Your task to perform on an android device: Clear the cart on walmart.com. Add macbook to the cart on walmart.com Image 0: 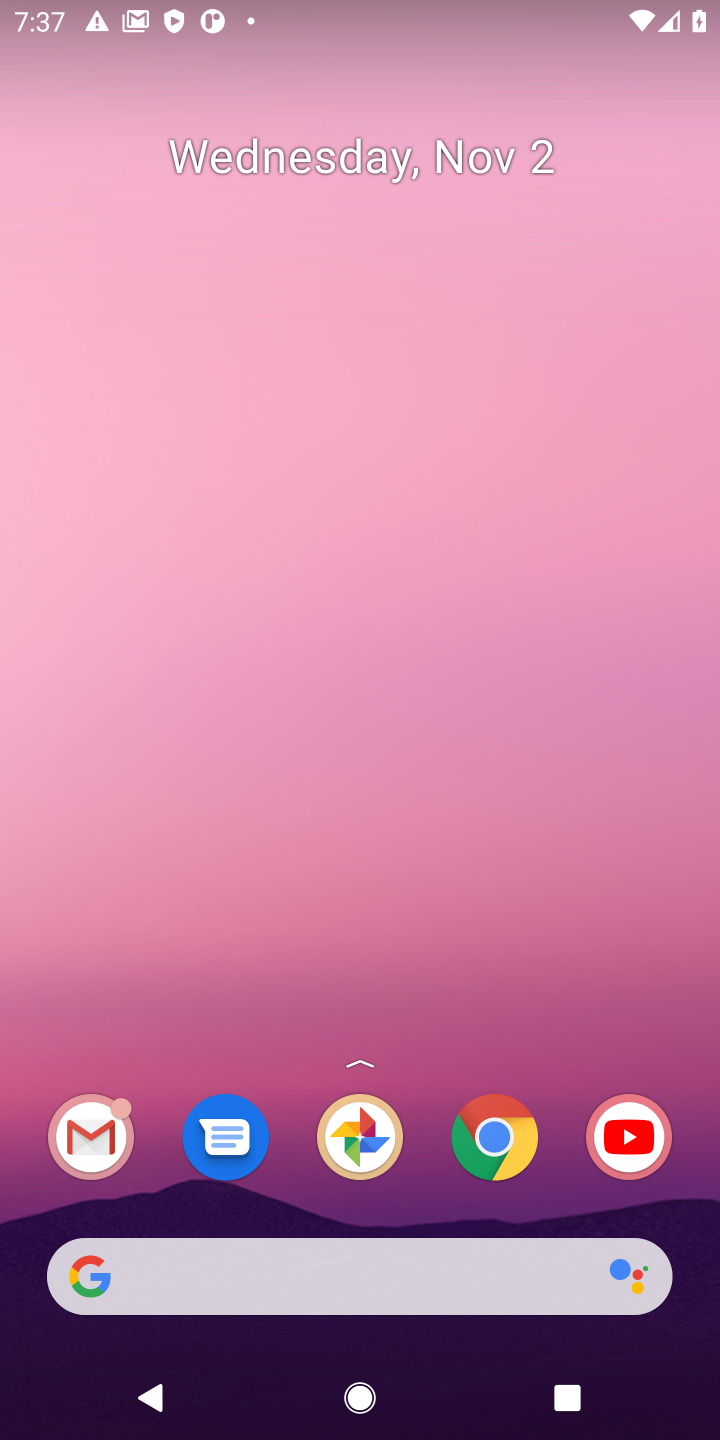
Step 0: click (488, 1128)
Your task to perform on an android device: Clear the cart on walmart.com. Add macbook to the cart on walmart.com Image 1: 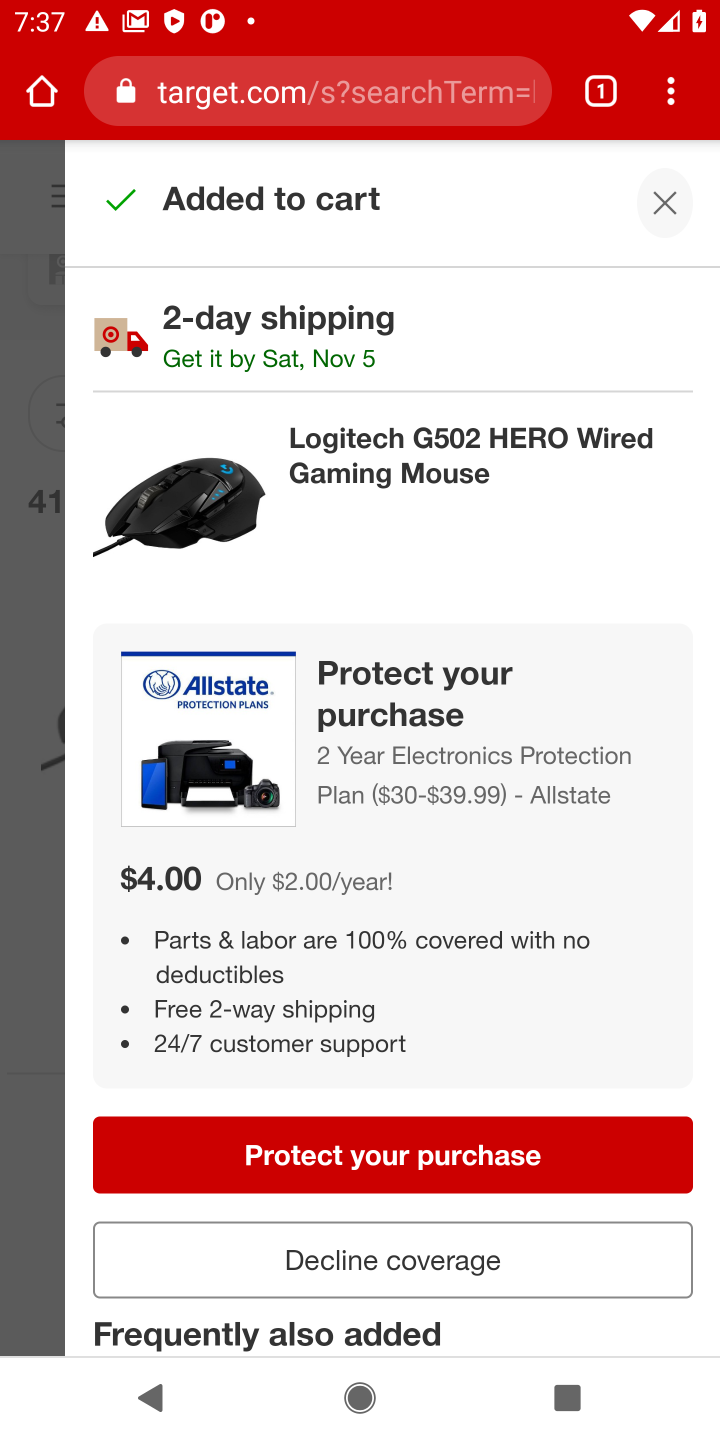
Step 1: click (368, 67)
Your task to perform on an android device: Clear the cart on walmart.com. Add macbook to the cart on walmart.com Image 2: 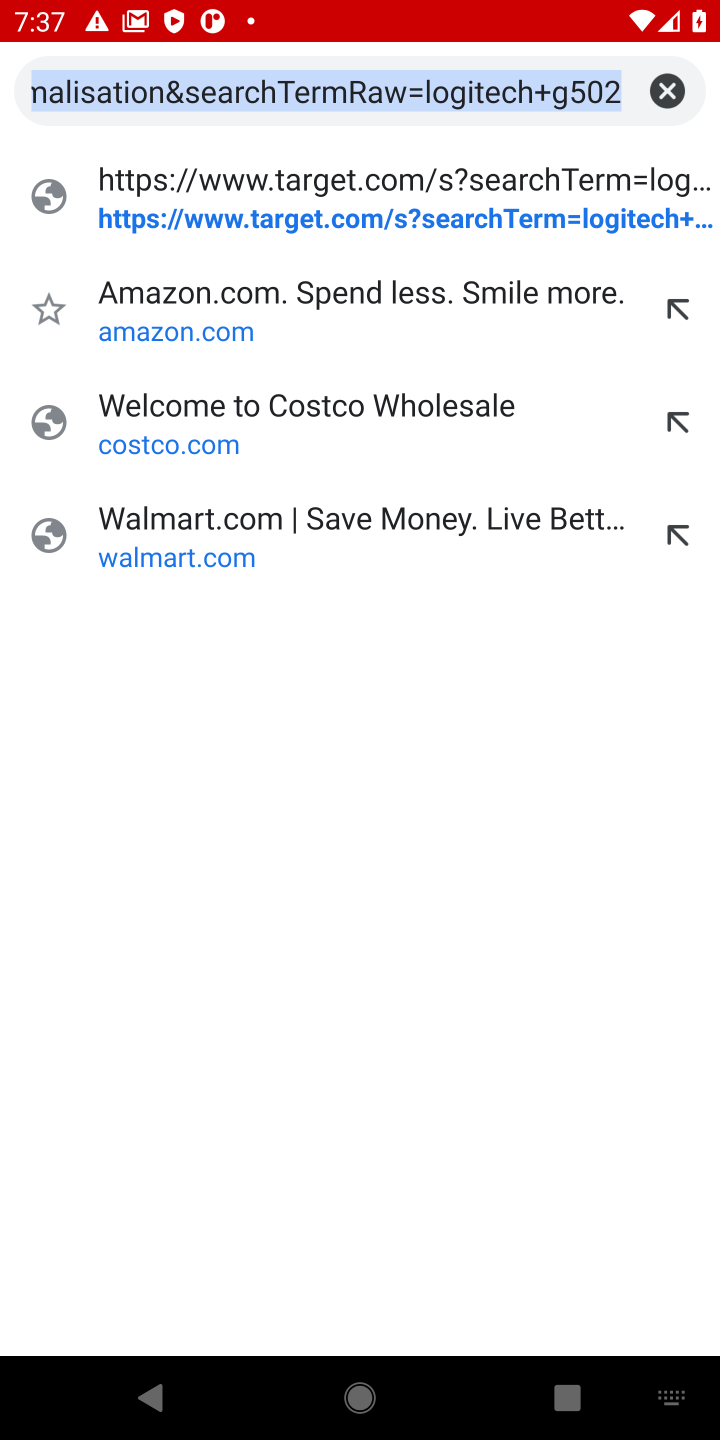
Step 2: click (664, 91)
Your task to perform on an android device: Clear the cart on walmart.com. Add macbook to the cart on walmart.com Image 3: 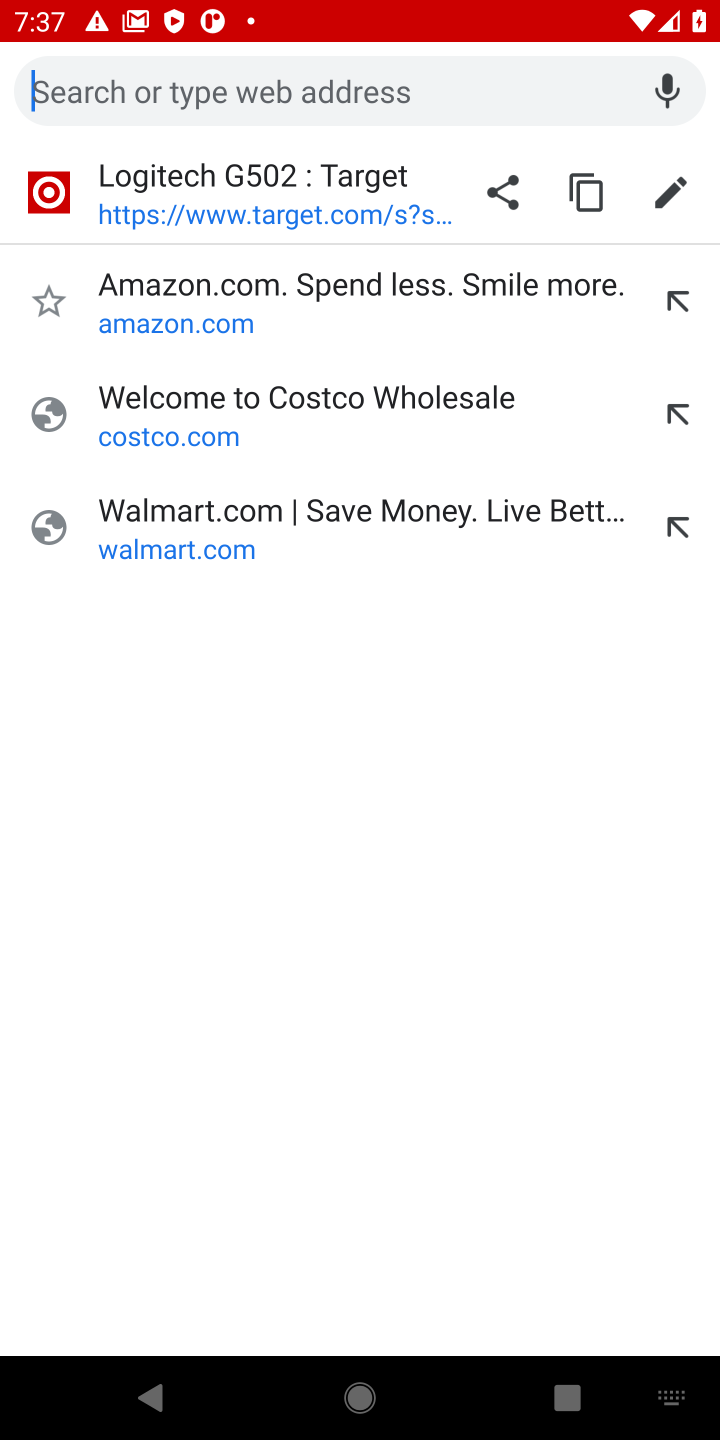
Step 3: type "walmart.com"
Your task to perform on an android device: Clear the cart on walmart.com. Add macbook to the cart on walmart.com Image 4: 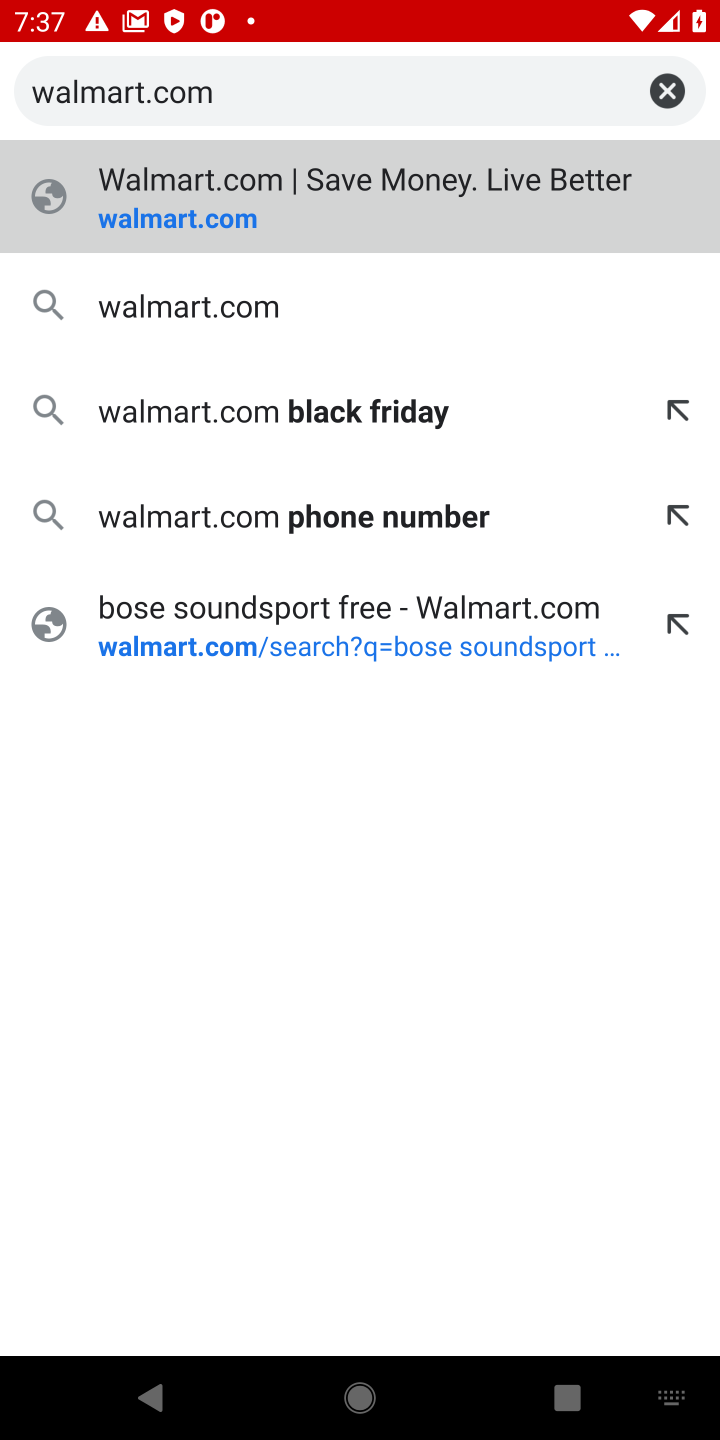
Step 4: click (148, 187)
Your task to perform on an android device: Clear the cart on walmart.com. Add macbook to the cart on walmart.com Image 5: 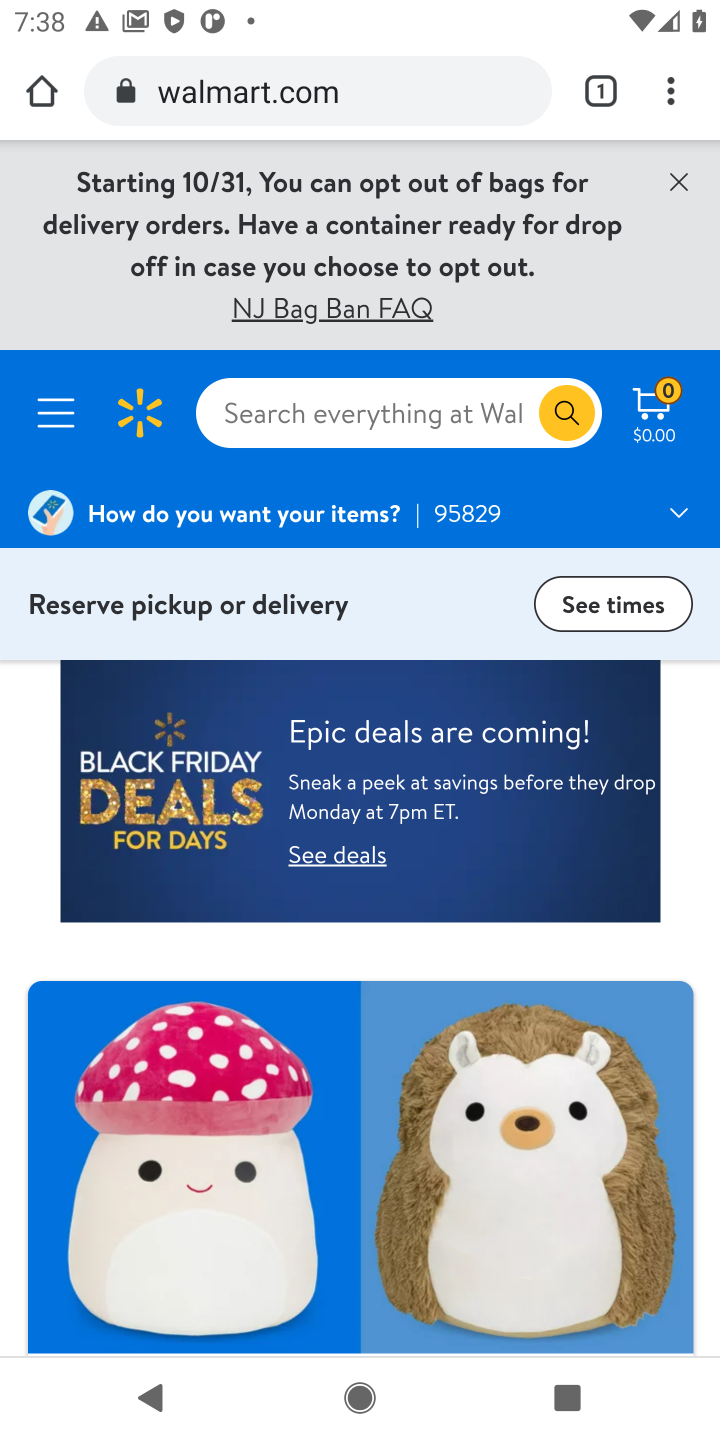
Step 5: click (642, 401)
Your task to perform on an android device: Clear the cart on walmart.com. Add macbook to the cart on walmart.com Image 6: 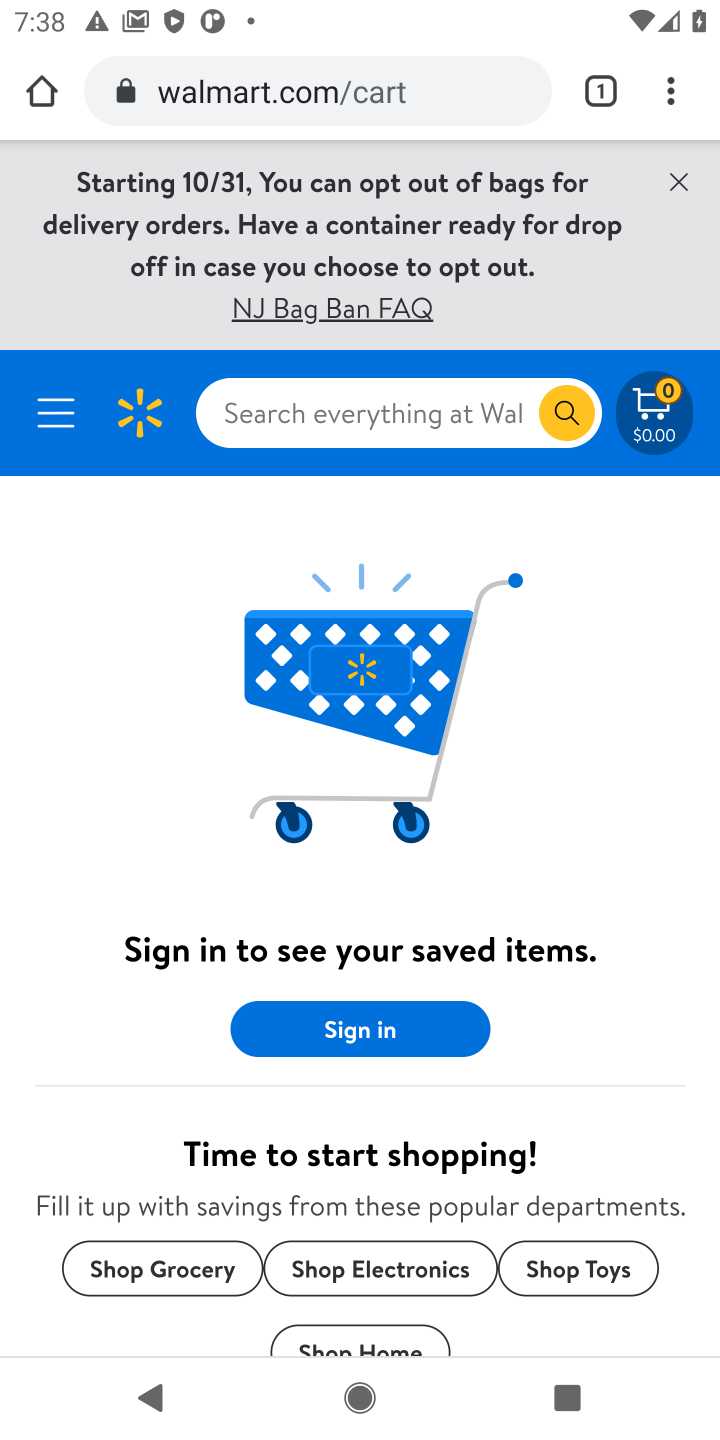
Step 6: click (339, 398)
Your task to perform on an android device: Clear the cart on walmart.com. Add macbook to the cart on walmart.com Image 7: 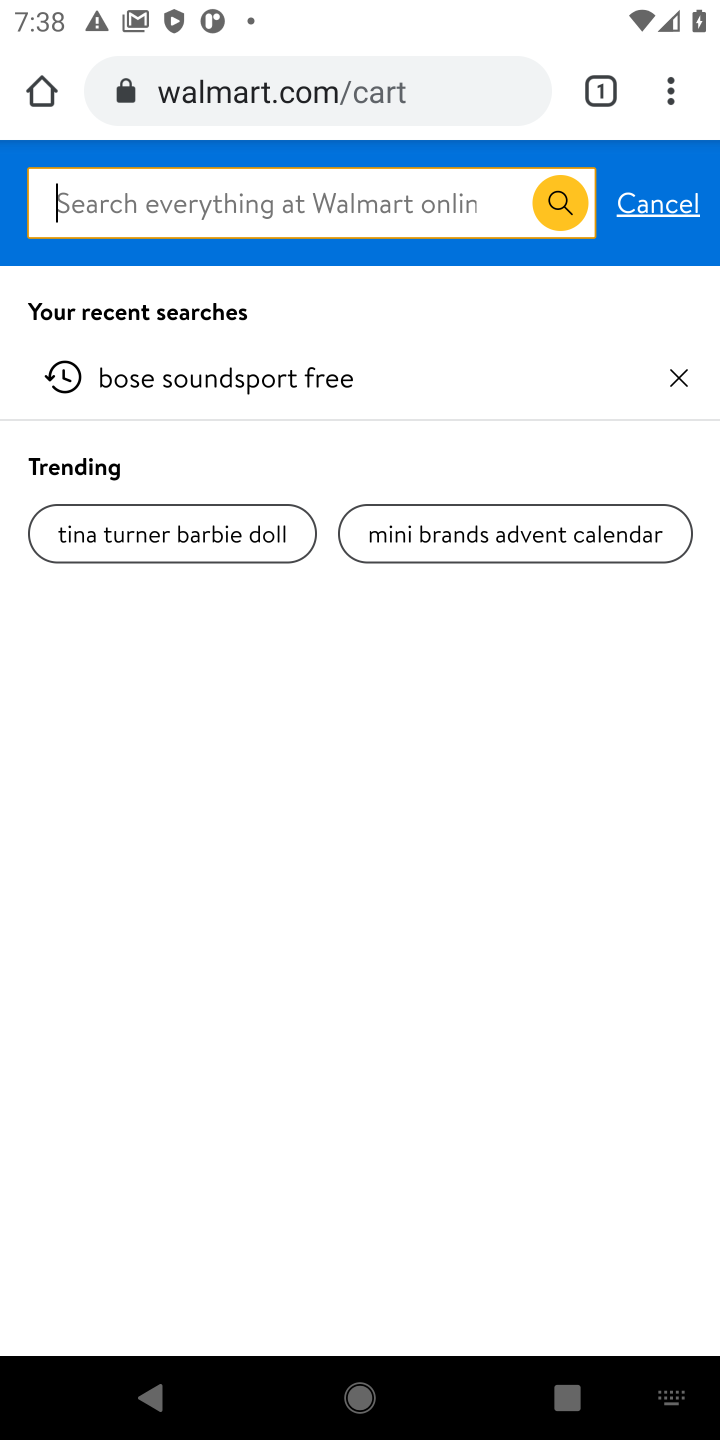
Step 7: type "macbook"
Your task to perform on an android device: Clear the cart on walmart.com. Add macbook to the cart on walmart.com Image 8: 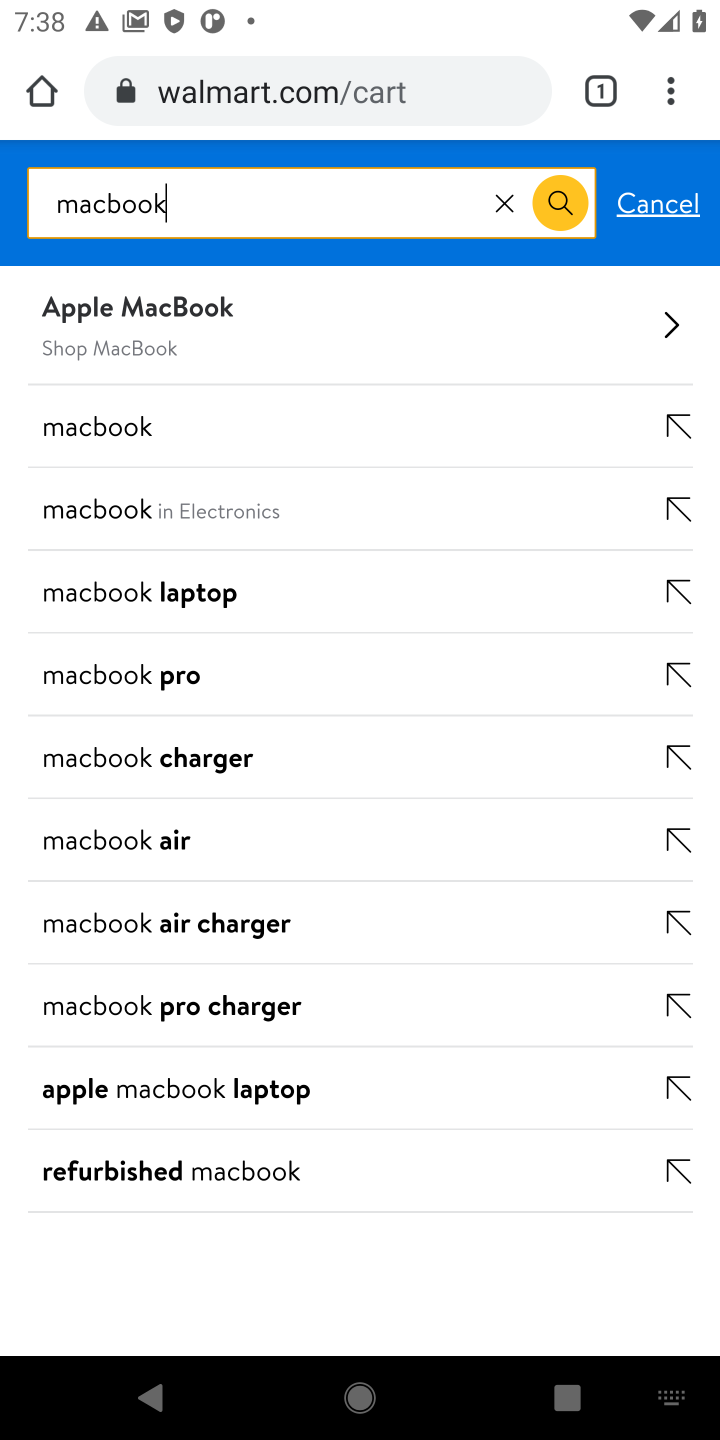
Step 8: click (96, 434)
Your task to perform on an android device: Clear the cart on walmart.com. Add macbook to the cart on walmart.com Image 9: 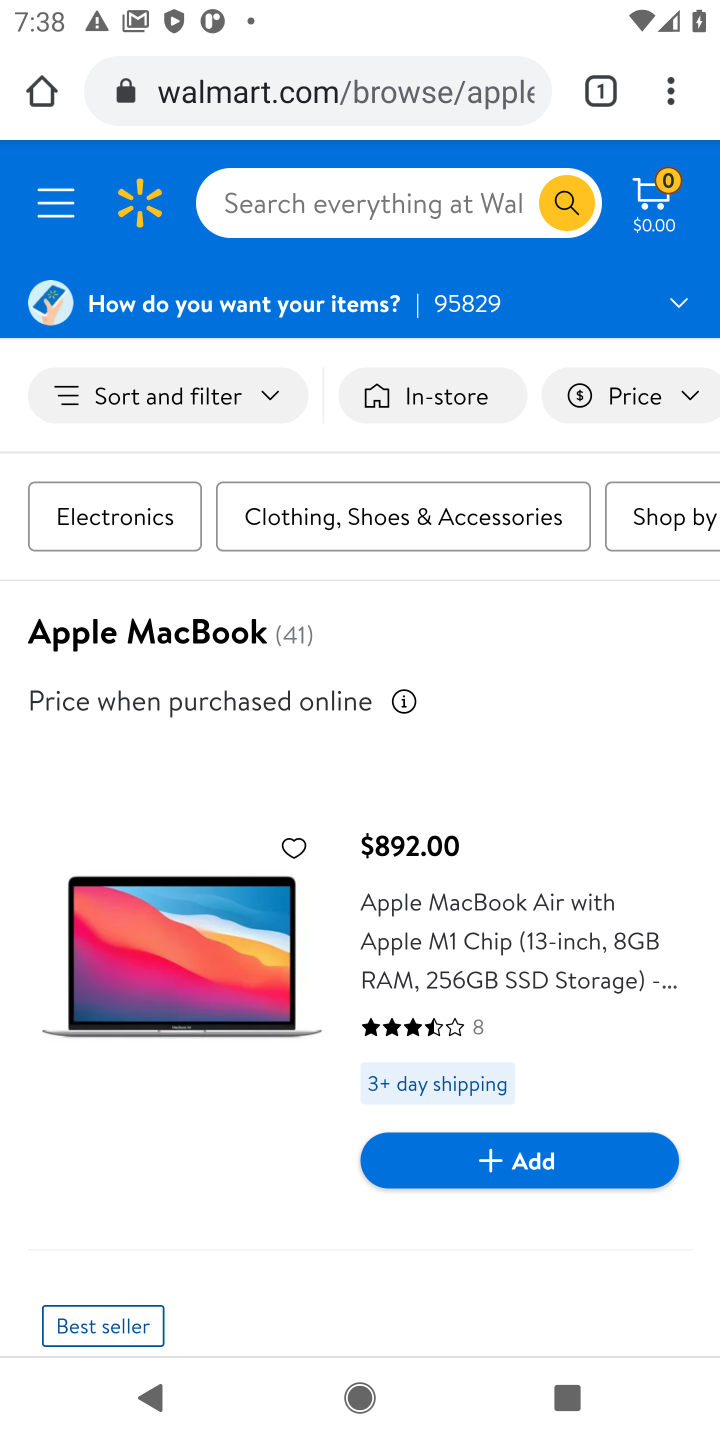
Step 9: click (490, 1155)
Your task to perform on an android device: Clear the cart on walmart.com. Add macbook to the cart on walmart.com Image 10: 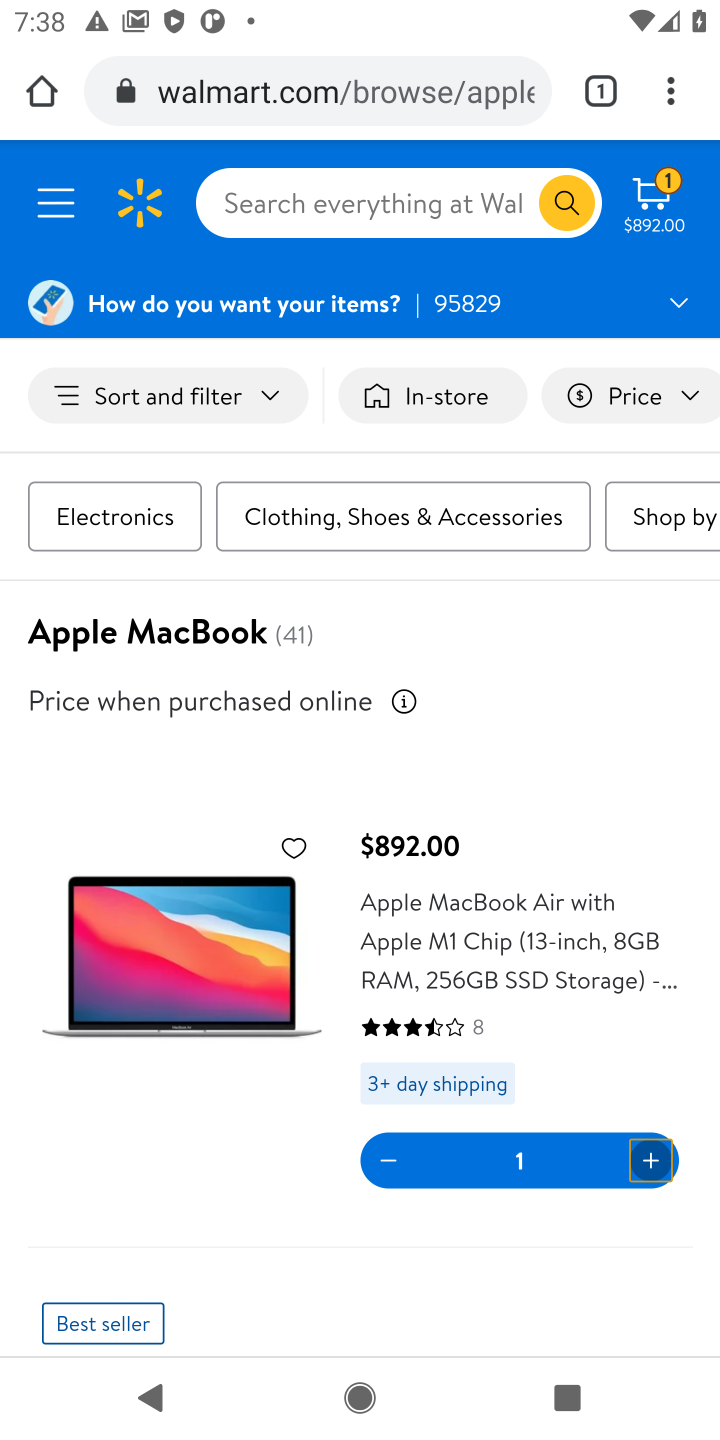
Step 10: task complete